Your task to perform on an android device: turn off notifications settings in the gmail app Image 0: 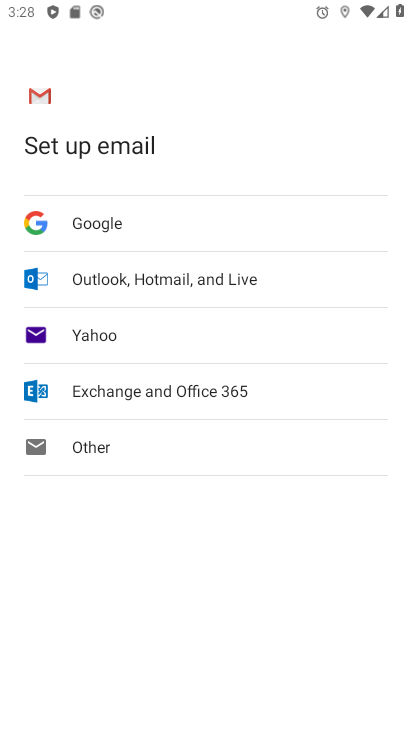
Step 0: press home button
Your task to perform on an android device: turn off notifications settings in the gmail app Image 1: 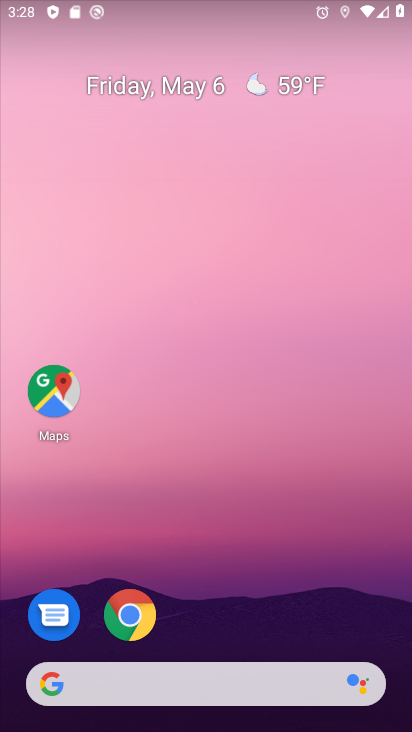
Step 1: drag from (255, 633) to (250, 43)
Your task to perform on an android device: turn off notifications settings in the gmail app Image 2: 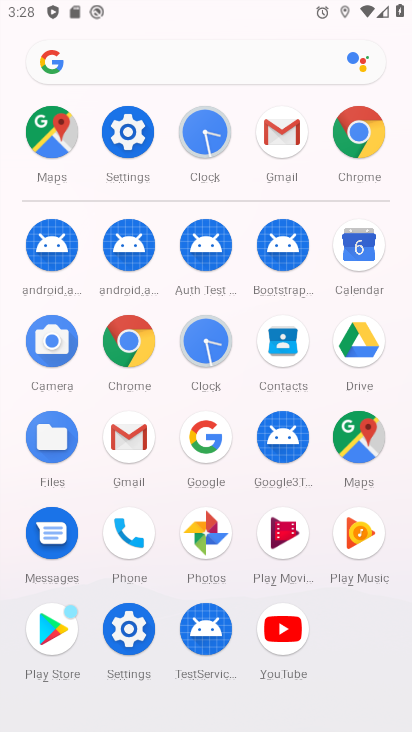
Step 2: click (128, 440)
Your task to perform on an android device: turn off notifications settings in the gmail app Image 3: 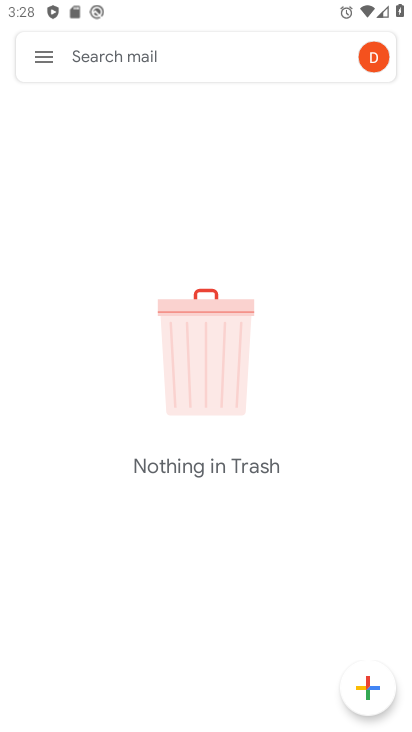
Step 3: click (39, 57)
Your task to perform on an android device: turn off notifications settings in the gmail app Image 4: 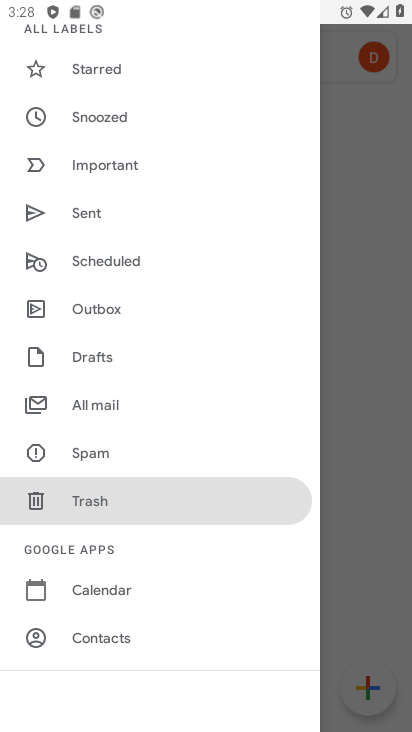
Step 4: drag from (228, 632) to (244, 290)
Your task to perform on an android device: turn off notifications settings in the gmail app Image 5: 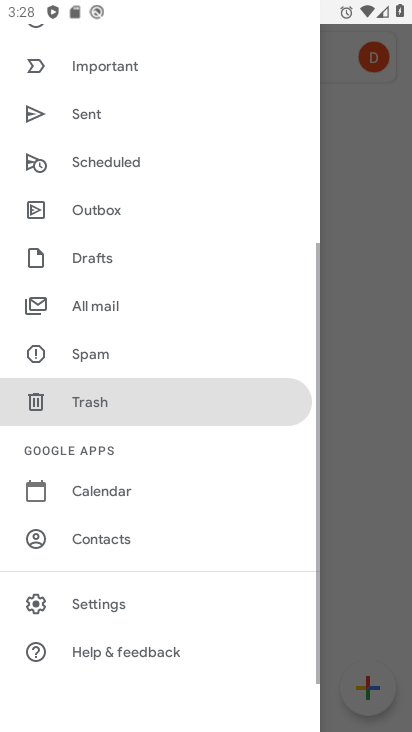
Step 5: click (89, 602)
Your task to perform on an android device: turn off notifications settings in the gmail app Image 6: 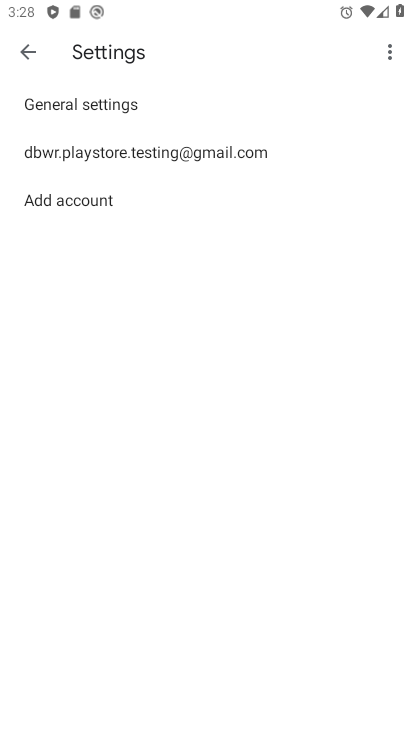
Step 6: click (87, 113)
Your task to perform on an android device: turn off notifications settings in the gmail app Image 7: 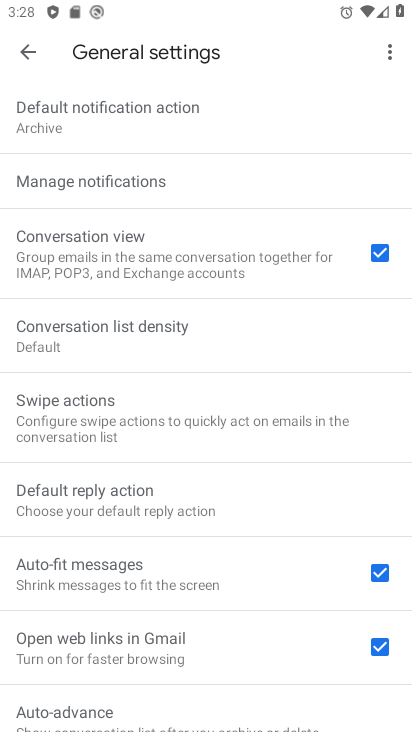
Step 7: click (71, 186)
Your task to perform on an android device: turn off notifications settings in the gmail app Image 8: 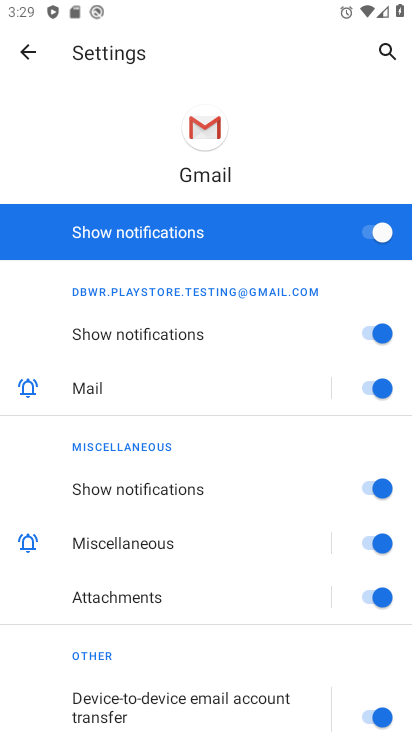
Step 8: click (385, 233)
Your task to perform on an android device: turn off notifications settings in the gmail app Image 9: 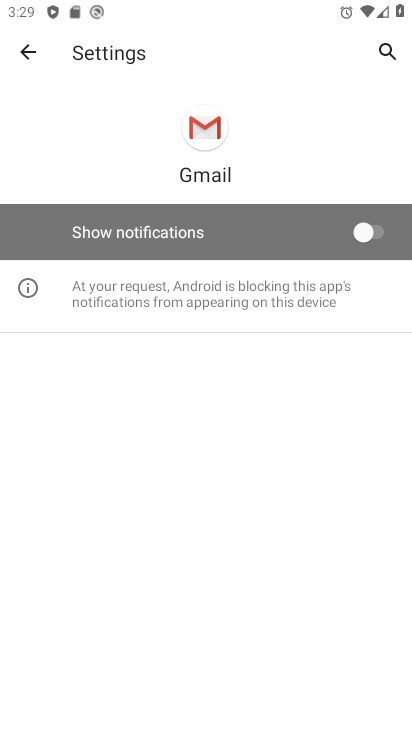
Step 9: task complete